Your task to perform on an android device: Search for vegetarian restaurants on Maps Image 0: 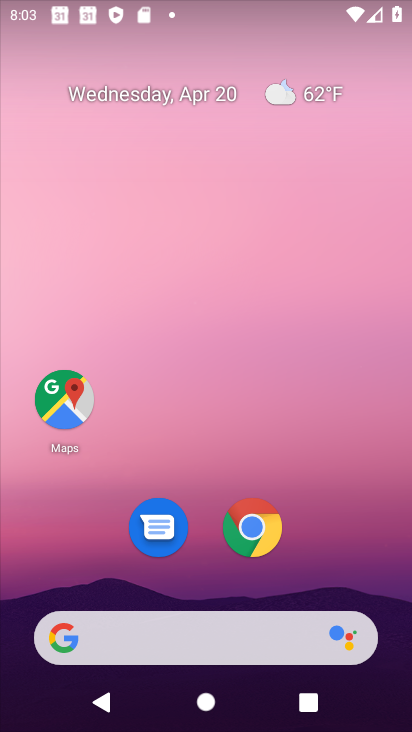
Step 0: click (66, 400)
Your task to perform on an android device: Search for vegetarian restaurants on Maps Image 1: 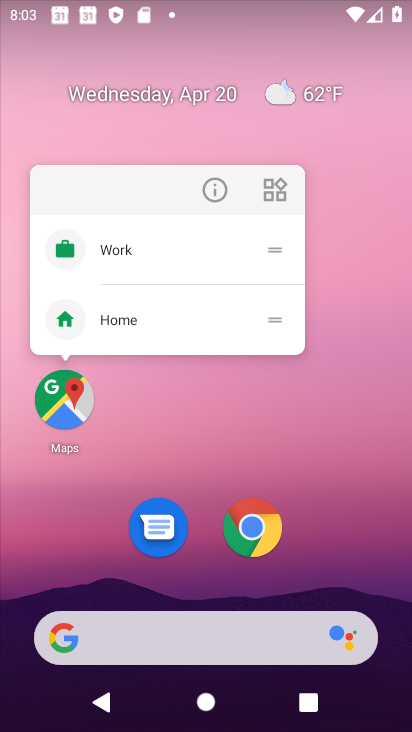
Step 1: click (65, 395)
Your task to perform on an android device: Search for vegetarian restaurants on Maps Image 2: 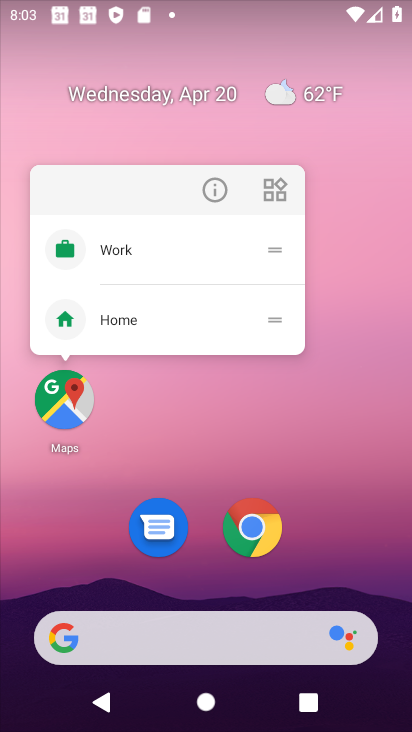
Step 2: click (65, 393)
Your task to perform on an android device: Search for vegetarian restaurants on Maps Image 3: 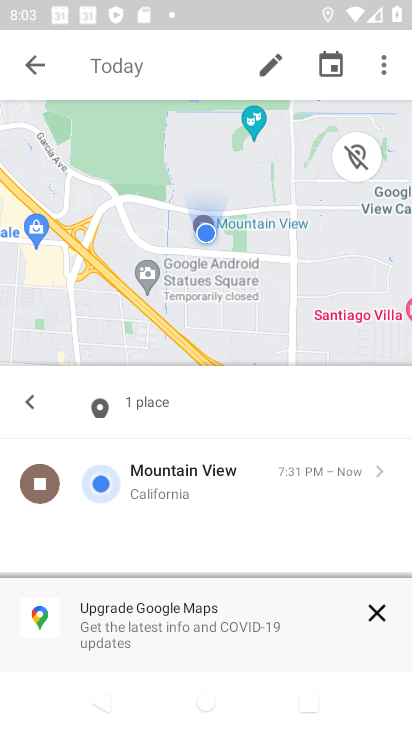
Step 3: click (35, 63)
Your task to perform on an android device: Search for vegetarian restaurants on Maps Image 4: 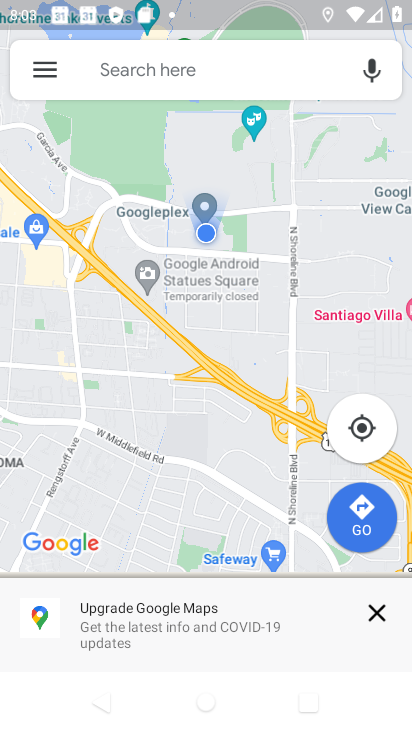
Step 4: click (135, 61)
Your task to perform on an android device: Search for vegetarian restaurants on Maps Image 5: 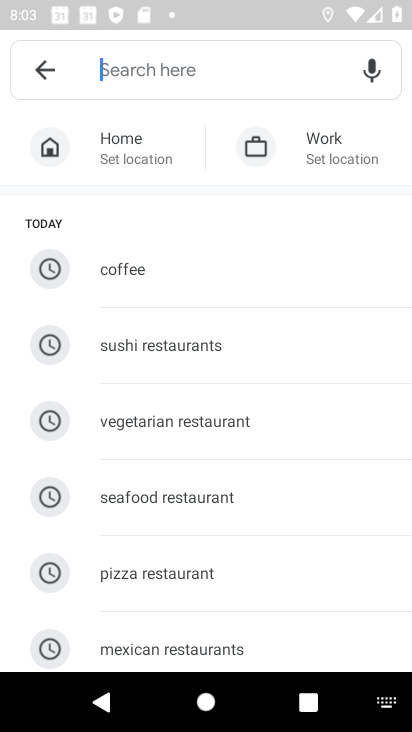
Step 5: click (121, 424)
Your task to perform on an android device: Search for vegetarian restaurants on Maps Image 6: 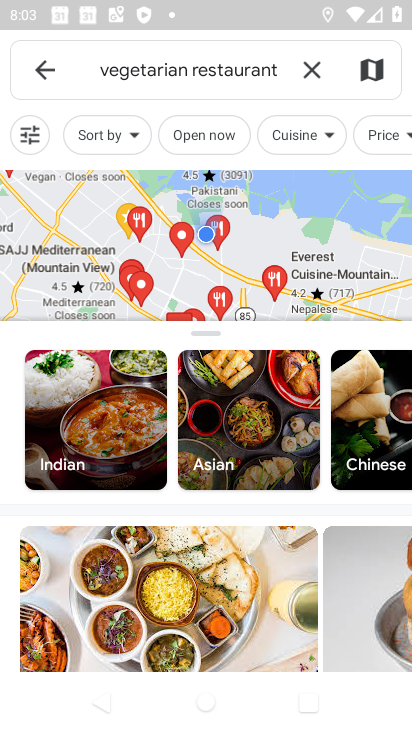
Step 6: task complete